Your task to perform on an android device: turn off improve location accuracy Image 0: 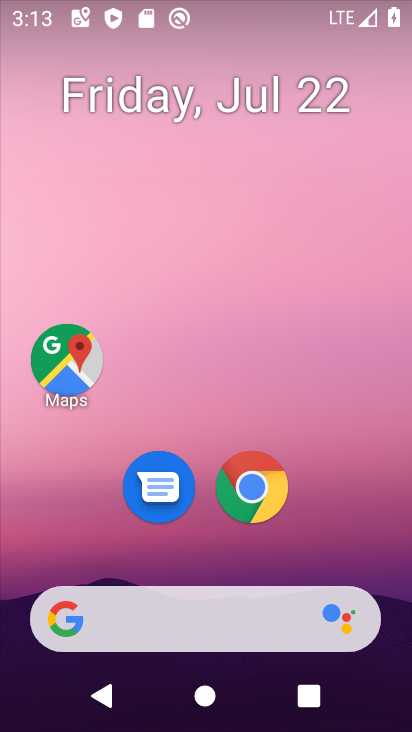
Step 0: drag from (185, 549) to (314, 35)
Your task to perform on an android device: turn off improve location accuracy Image 1: 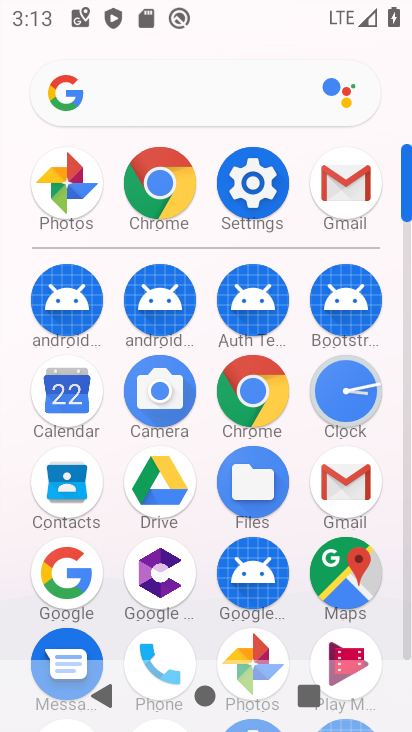
Step 1: click (253, 191)
Your task to perform on an android device: turn off improve location accuracy Image 2: 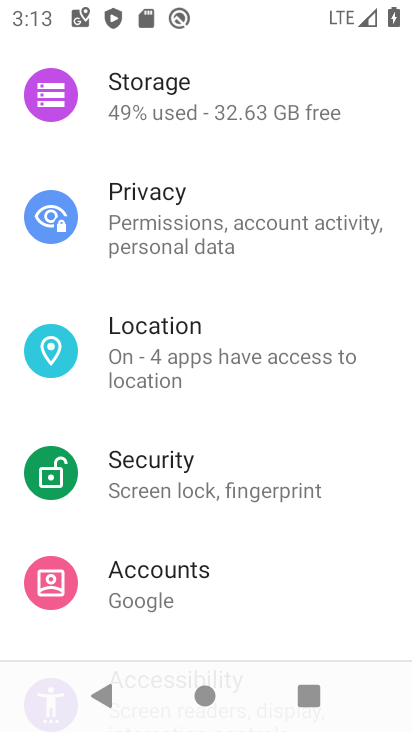
Step 2: click (181, 337)
Your task to perform on an android device: turn off improve location accuracy Image 3: 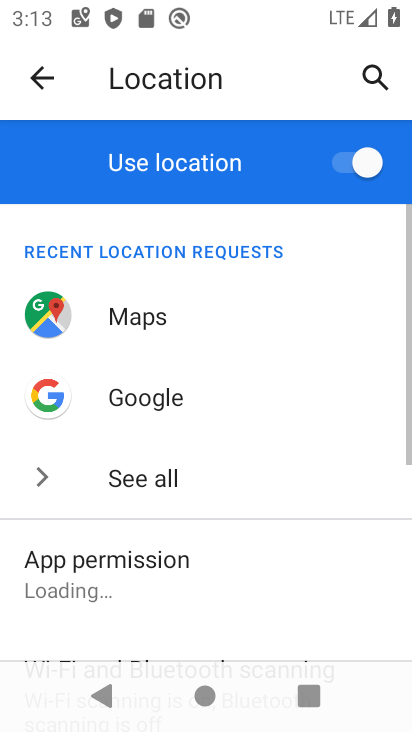
Step 3: drag from (149, 585) to (228, 8)
Your task to perform on an android device: turn off improve location accuracy Image 4: 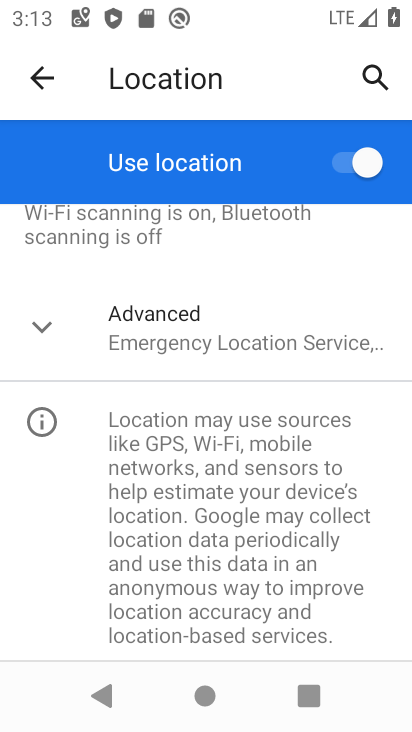
Step 4: click (190, 321)
Your task to perform on an android device: turn off improve location accuracy Image 5: 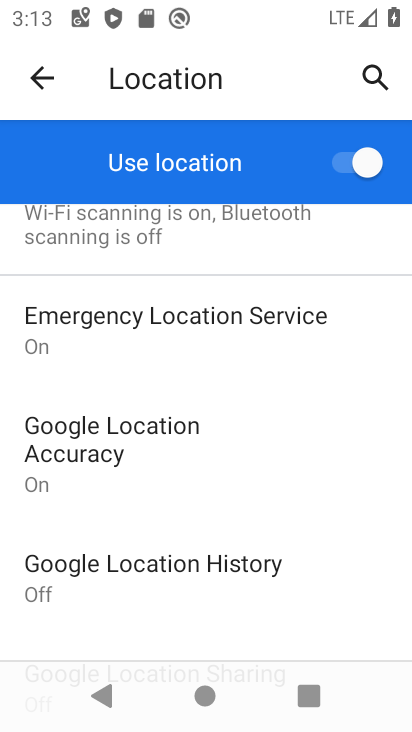
Step 5: click (98, 449)
Your task to perform on an android device: turn off improve location accuracy Image 6: 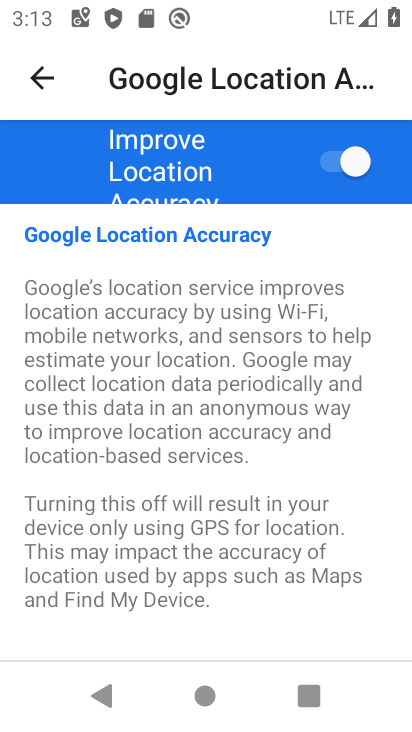
Step 6: click (355, 155)
Your task to perform on an android device: turn off improve location accuracy Image 7: 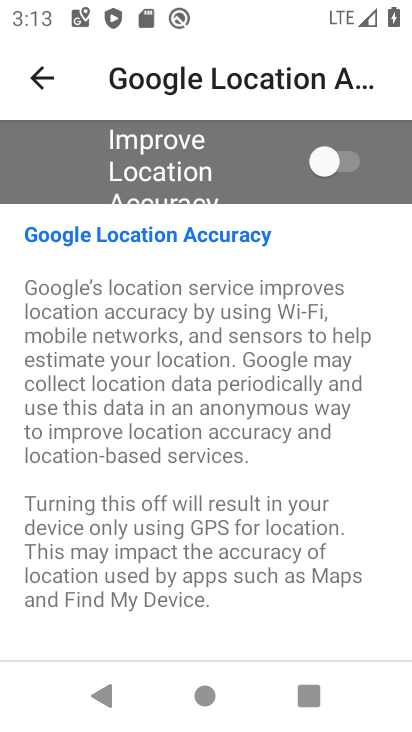
Step 7: task complete